Your task to perform on an android device: Open Google Maps and go to "Timeline" Image 0: 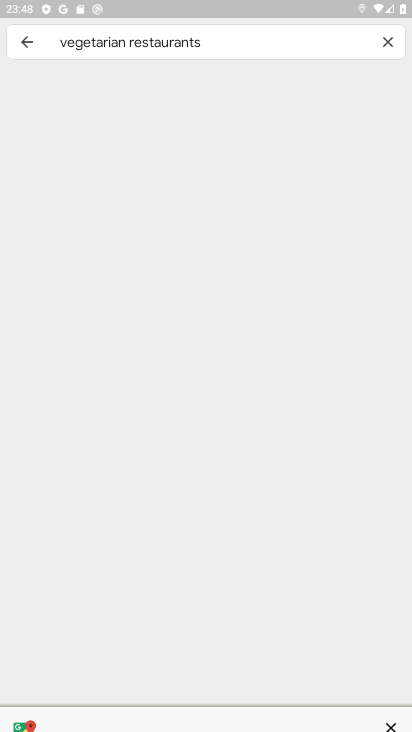
Step 0: press home button
Your task to perform on an android device: Open Google Maps and go to "Timeline" Image 1: 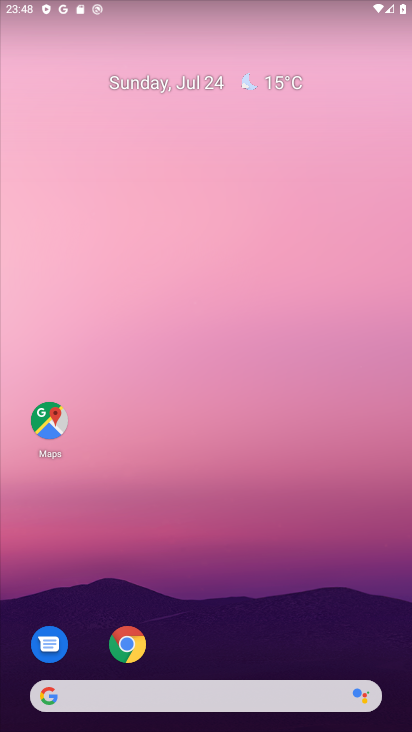
Step 1: drag from (215, 729) to (214, 159)
Your task to perform on an android device: Open Google Maps and go to "Timeline" Image 2: 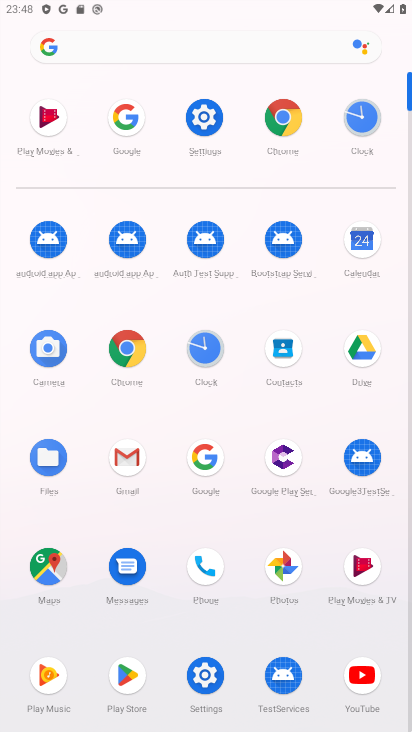
Step 2: click (39, 562)
Your task to perform on an android device: Open Google Maps and go to "Timeline" Image 3: 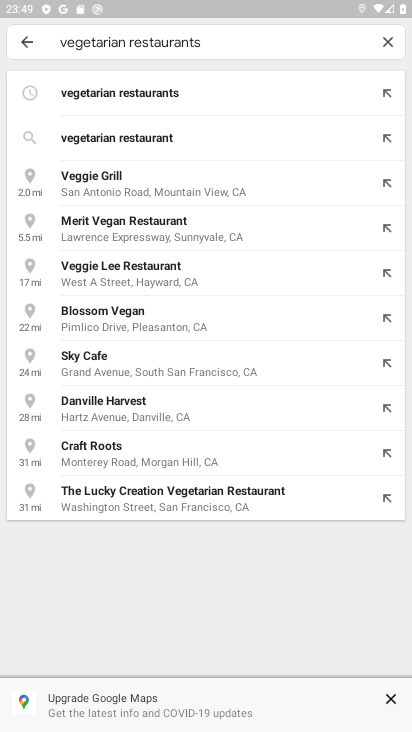
Step 3: click (31, 39)
Your task to perform on an android device: Open Google Maps and go to "Timeline" Image 4: 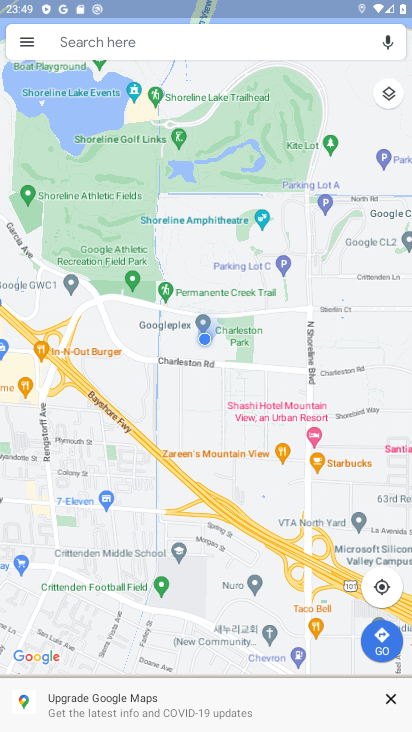
Step 4: click (22, 40)
Your task to perform on an android device: Open Google Maps and go to "Timeline" Image 5: 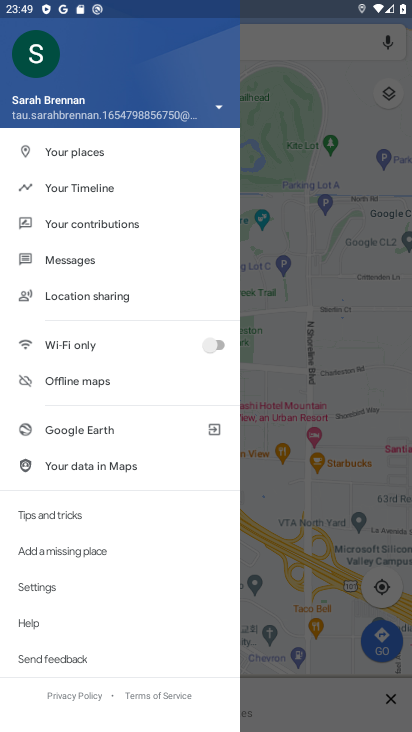
Step 5: click (69, 185)
Your task to perform on an android device: Open Google Maps and go to "Timeline" Image 6: 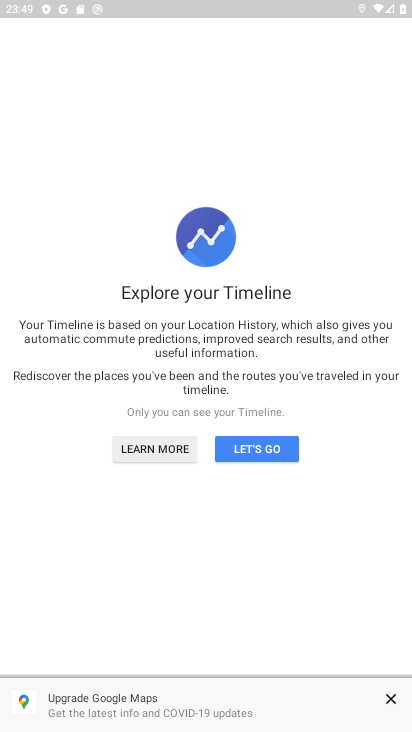
Step 6: click (255, 444)
Your task to perform on an android device: Open Google Maps and go to "Timeline" Image 7: 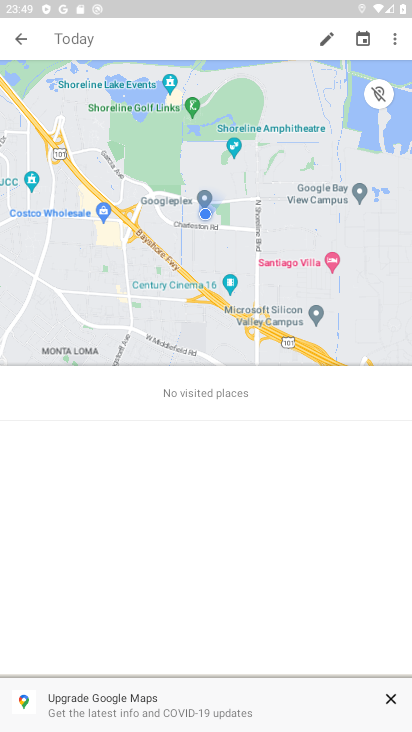
Step 7: task complete